Your task to perform on an android device: turn on bluetooth scan Image 0: 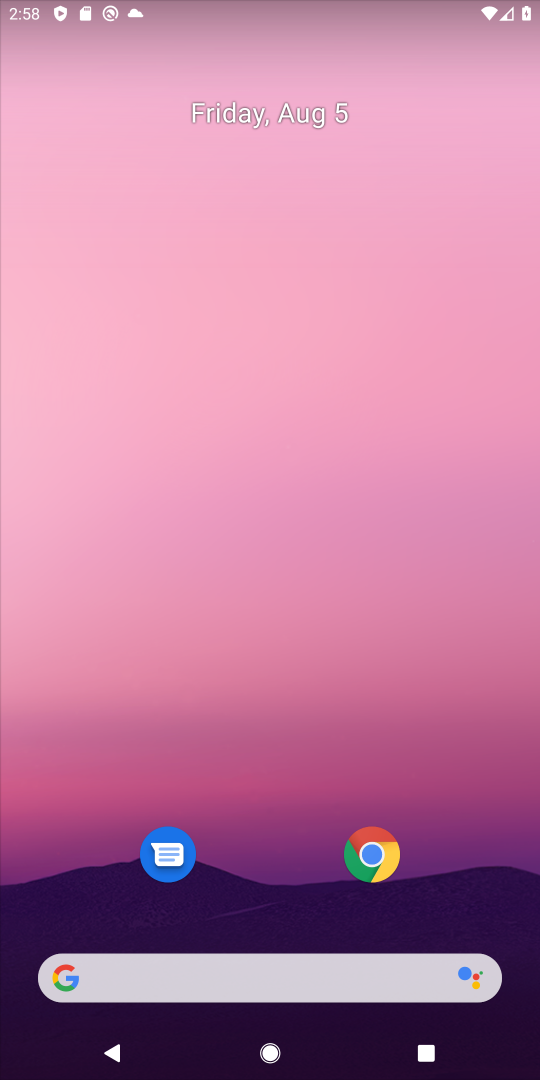
Step 0: drag from (54, 1037) to (488, 122)
Your task to perform on an android device: turn on bluetooth scan Image 1: 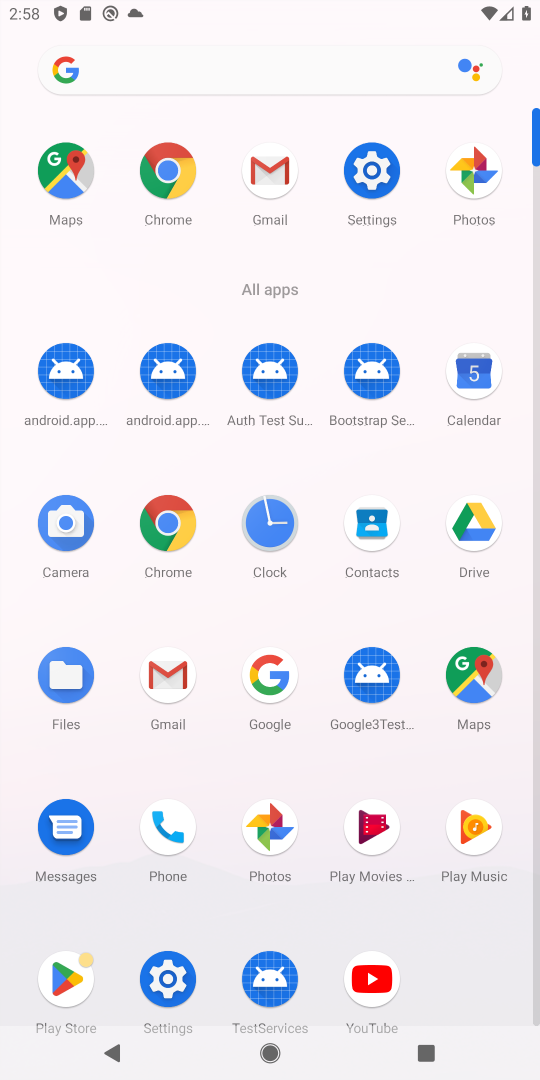
Step 1: click (165, 979)
Your task to perform on an android device: turn on bluetooth scan Image 2: 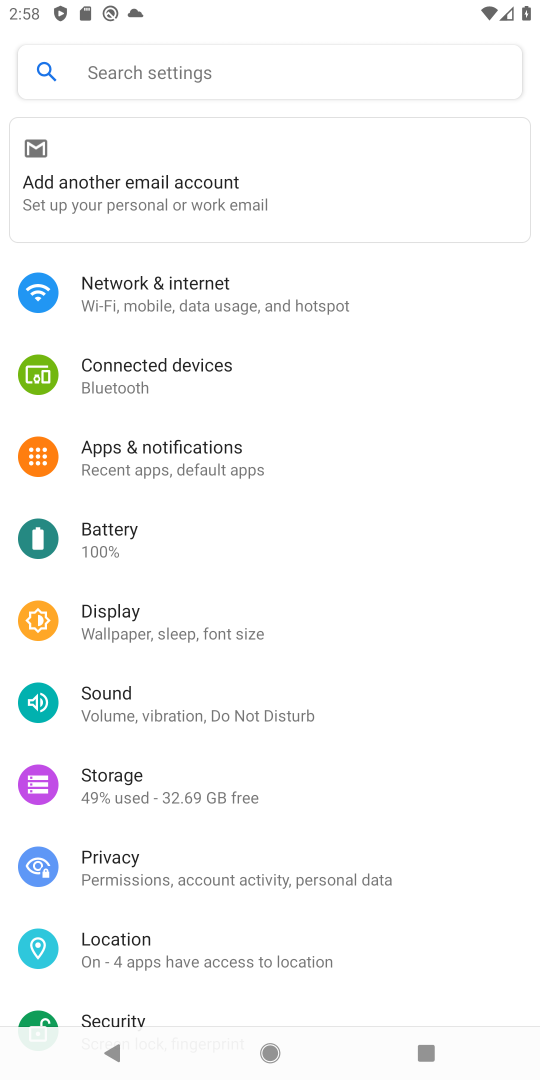
Step 2: click (127, 382)
Your task to perform on an android device: turn on bluetooth scan Image 3: 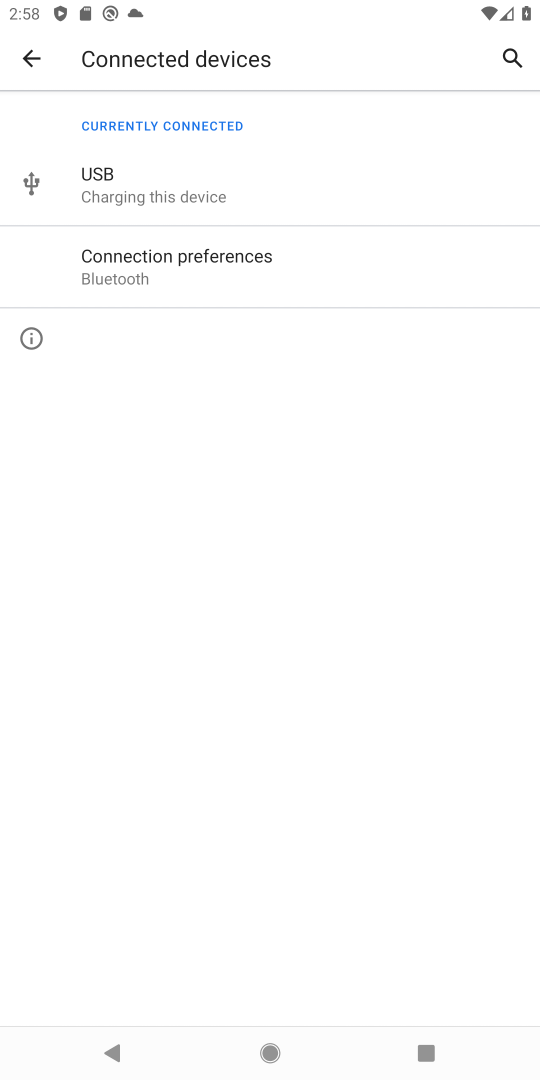
Step 3: click (181, 256)
Your task to perform on an android device: turn on bluetooth scan Image 4: 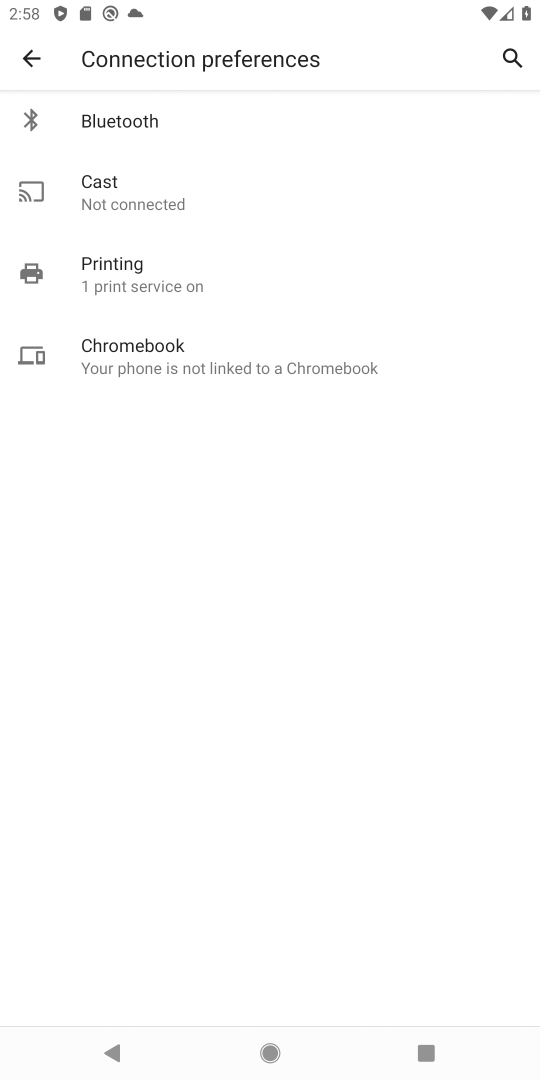
Step 4: click (150, 132)
Your task to perform on an android device: turn on bluetooth scan Image 5: 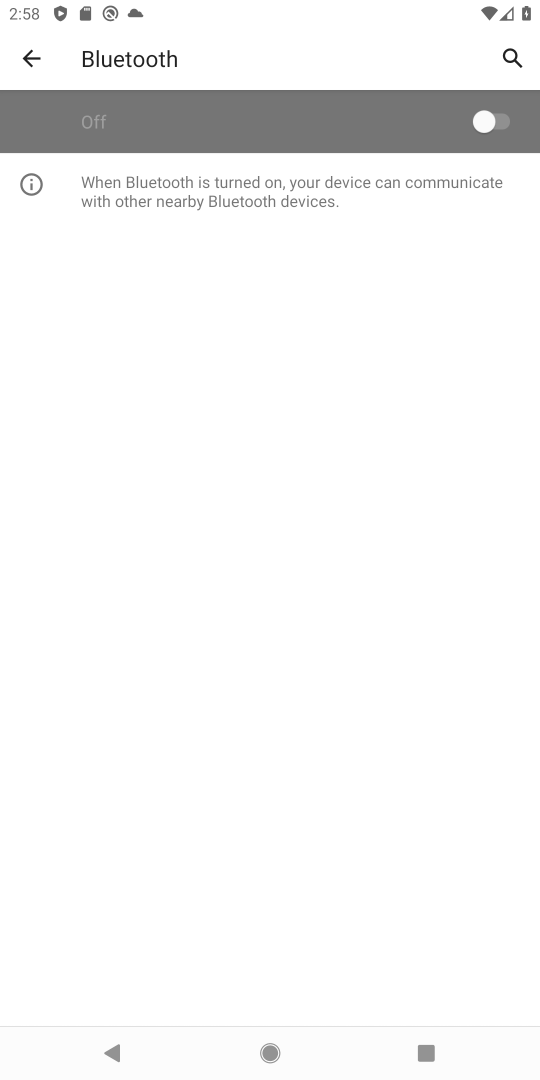
Step 5: click (495, 118)
Your task to perform on an android device: turn on bluetooth scan Image 6: 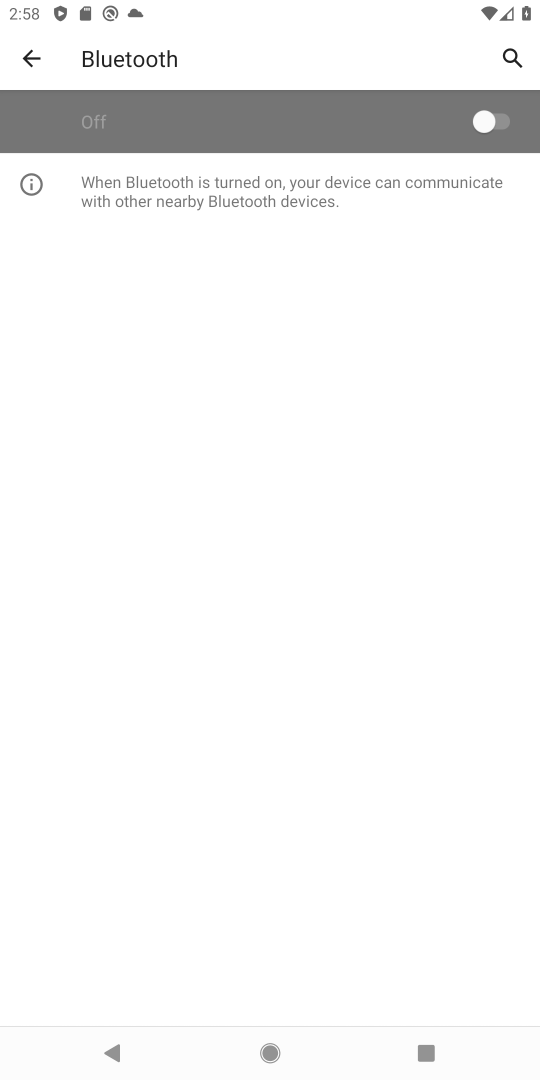
Step 6: task complete